Your task to perform on an android device: uninstall "Pluto TV - Live TV and Movies" Image 0: 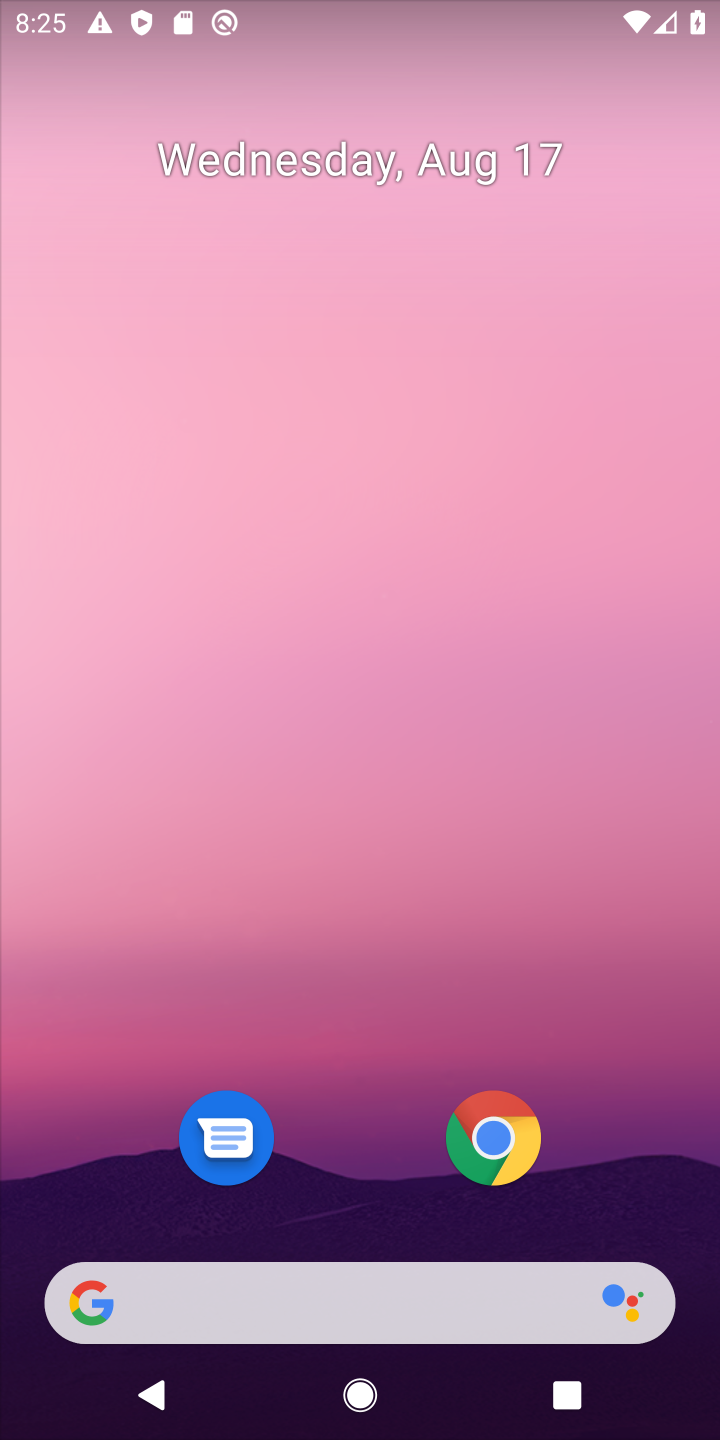
Step 0: drag from (300, 1194) to (380, 30)
Your task to perform on an android device: uninstall "Pluto TV - Live TV and Movies" Image 1: 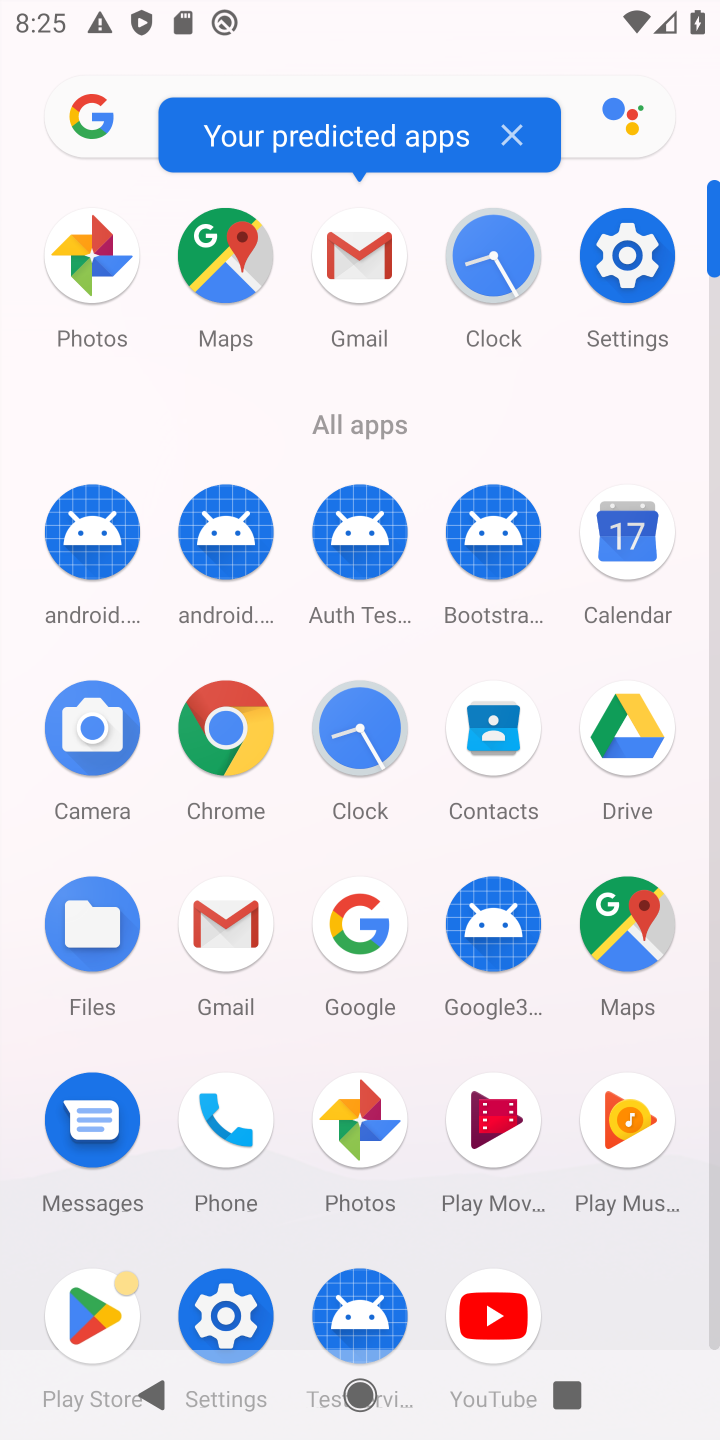
Step 1: click (89, 1298)
Your task to perform on an android device: uninstall "Pluto TV - Live TV and Movies" Image 2: 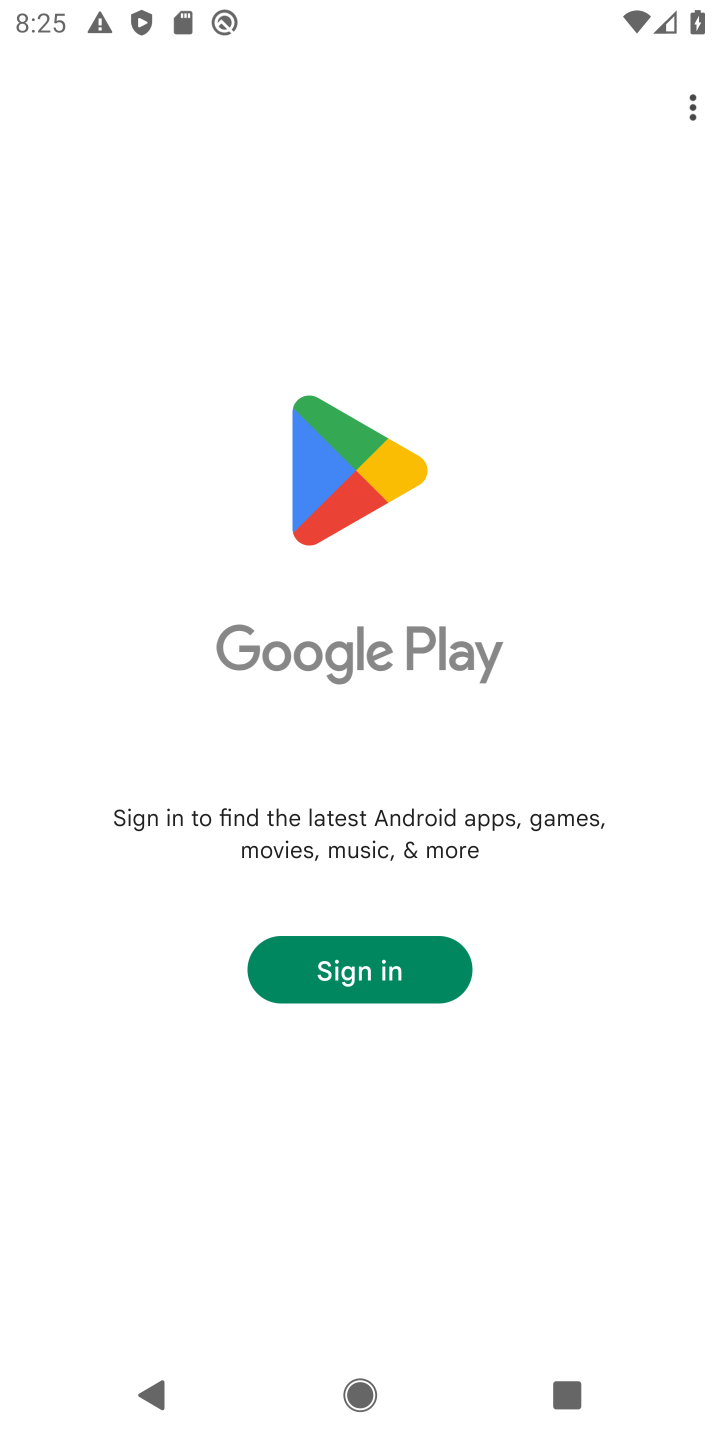
Step 2: click (329, 947)
Your task to perform on an android device: uninstall "Pluto TV - Live TV and Movies" Image 3: 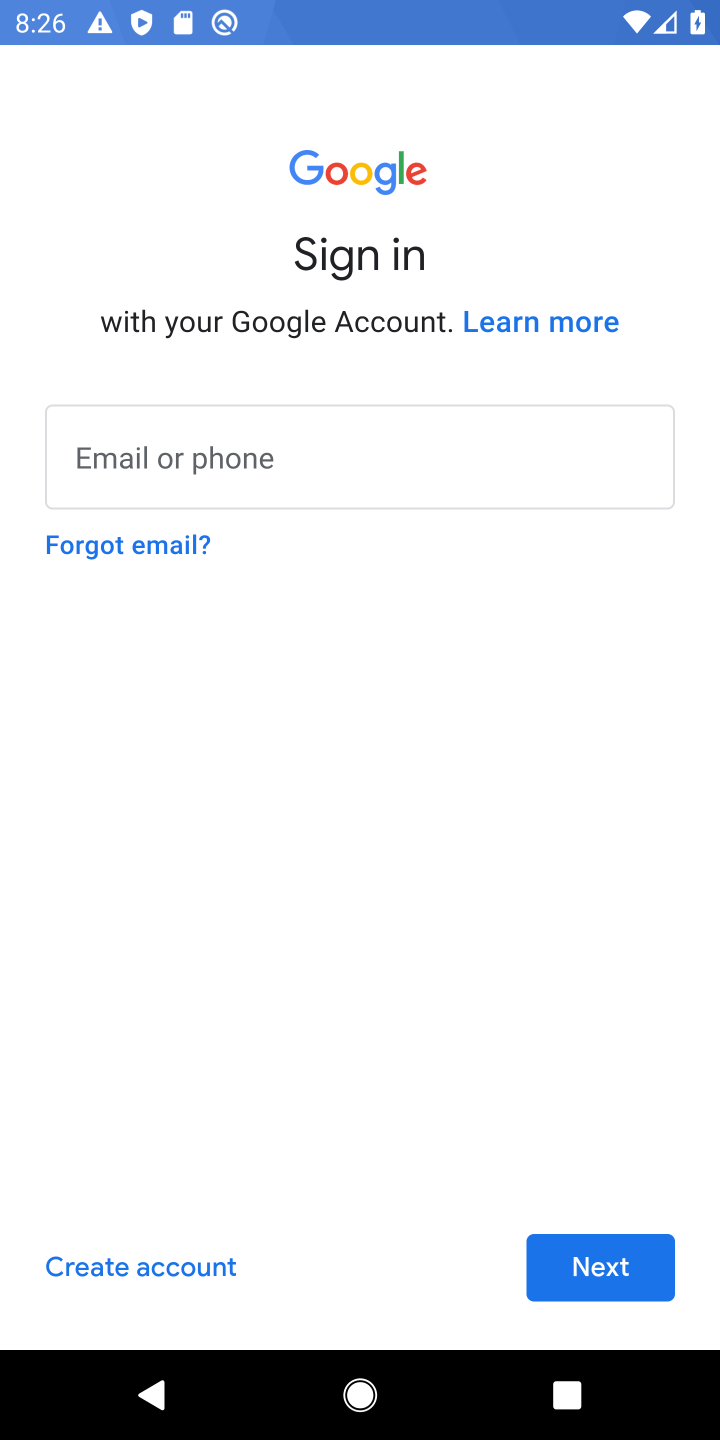
Step 3: task complete